Your task to perform on an android device: turn off data saver in the chrome app Image 0: 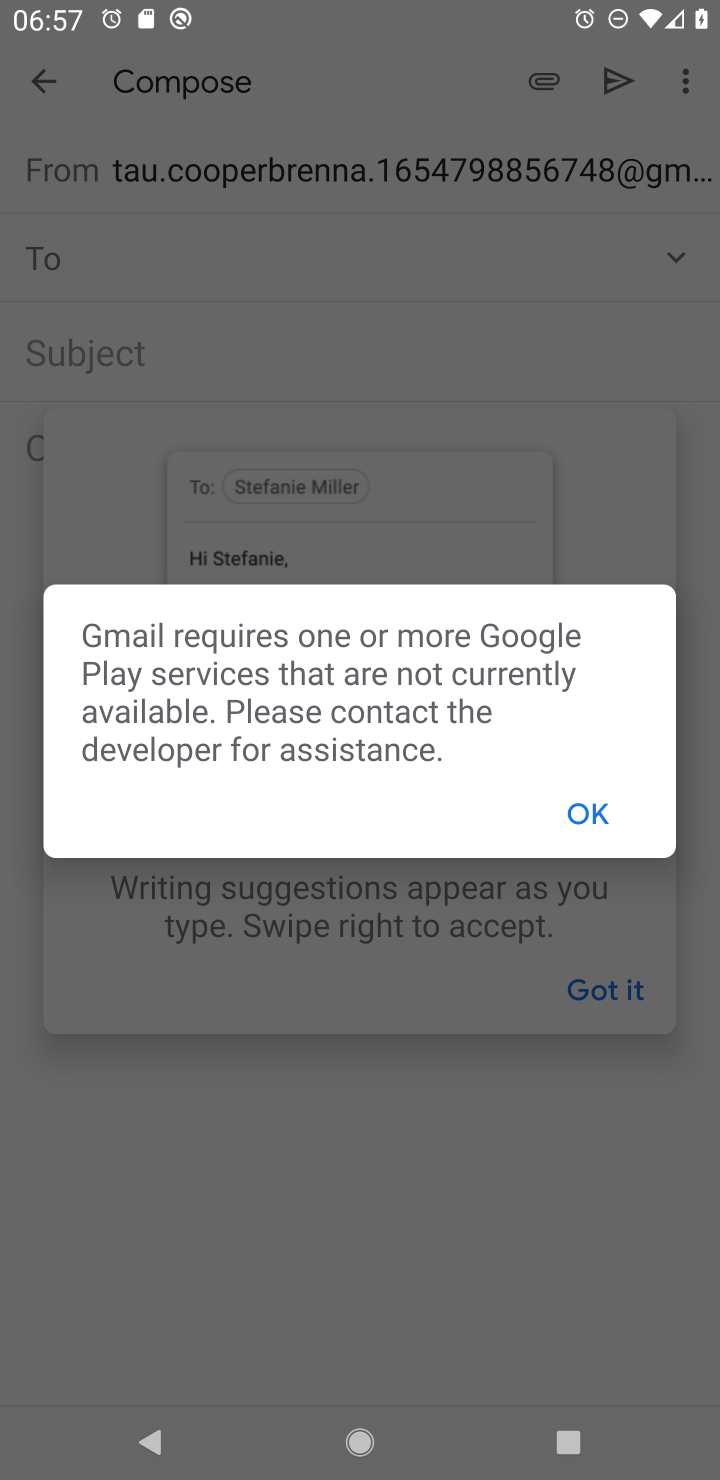
Step 0: click (595, 824)
Your task to perform on an android device: turn off data saver in the chrome app Image 1: 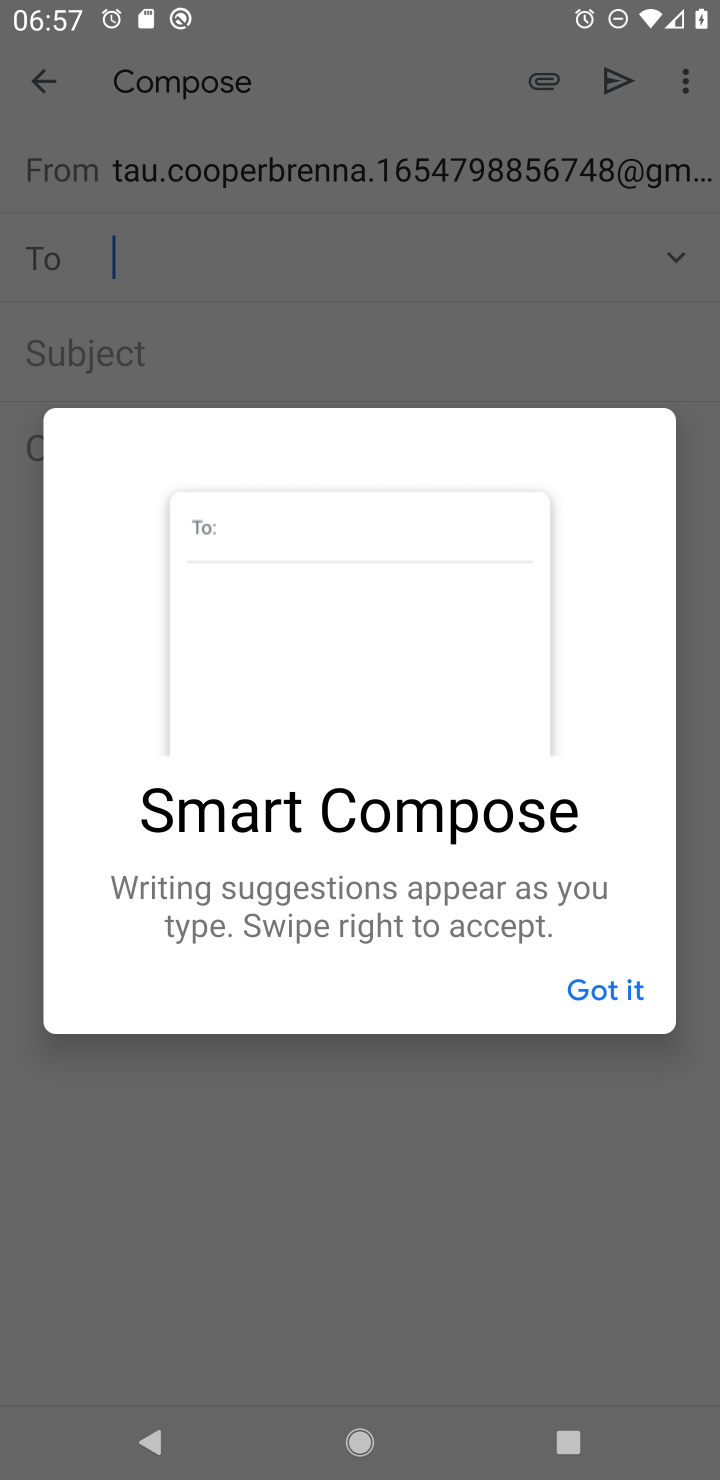
Step 1: press home button
Your task to perform on an android device: turn off data saver in the chrome app Image 2: 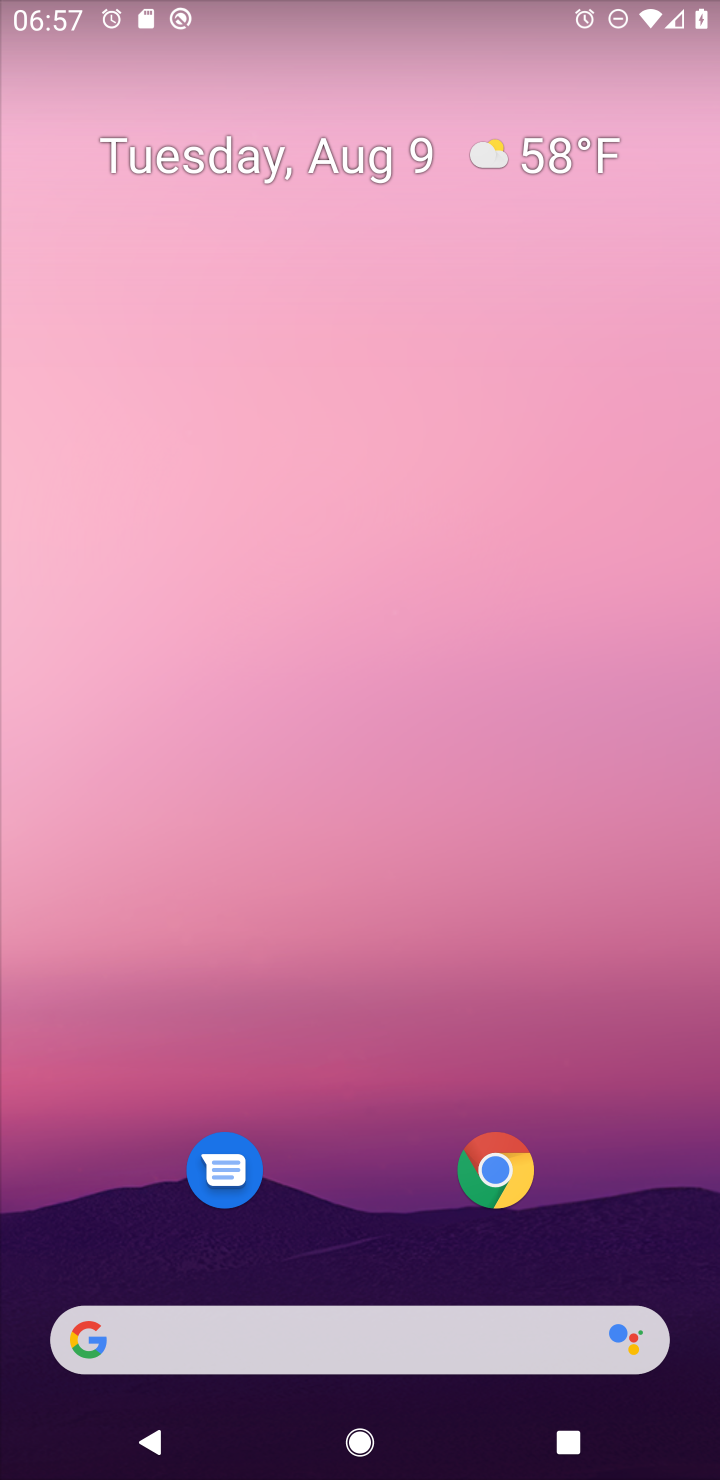
Step 2: click (504, 1168)
Your task to perform on an android device: turn off data saver in the chrome app Image 3: 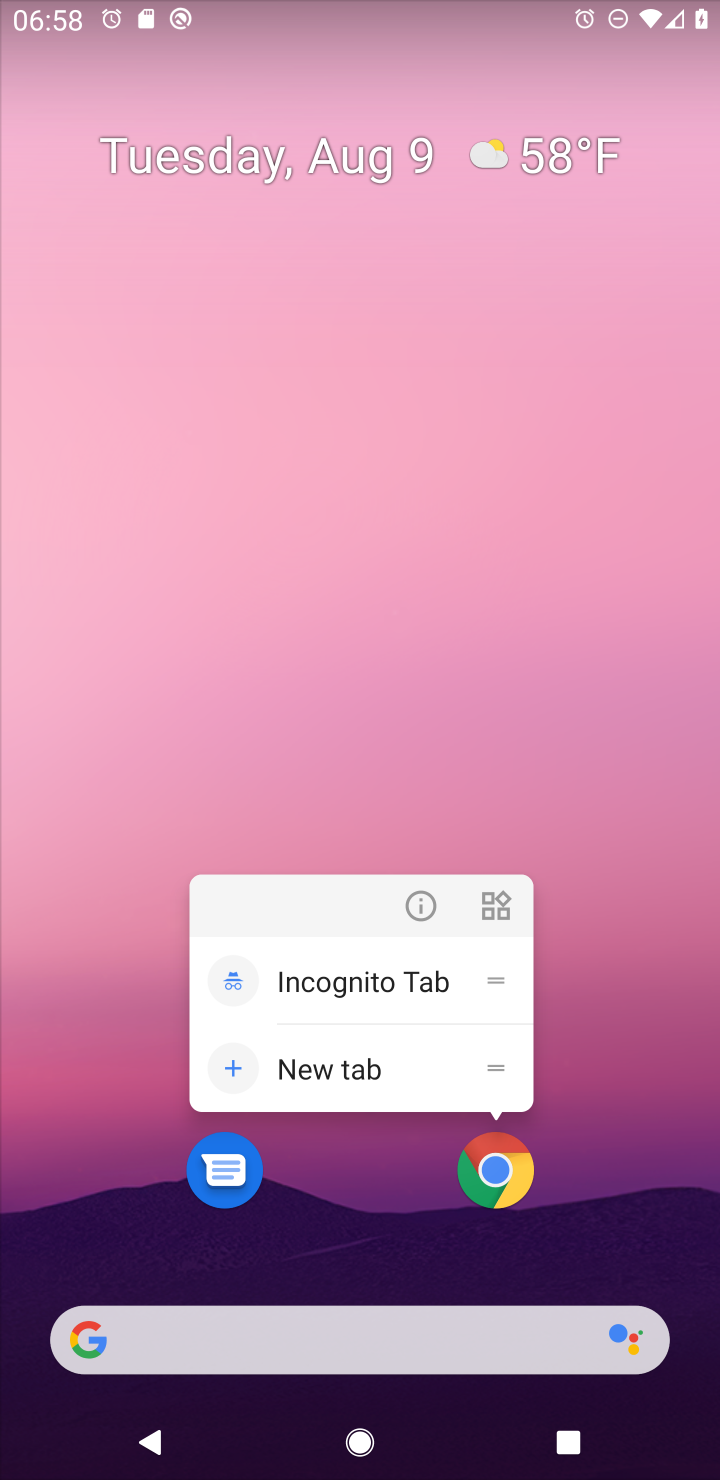
Step 3: click (490, 1172)
Your task to perform on an android device: turn off data saver in the chrome app Image 4: 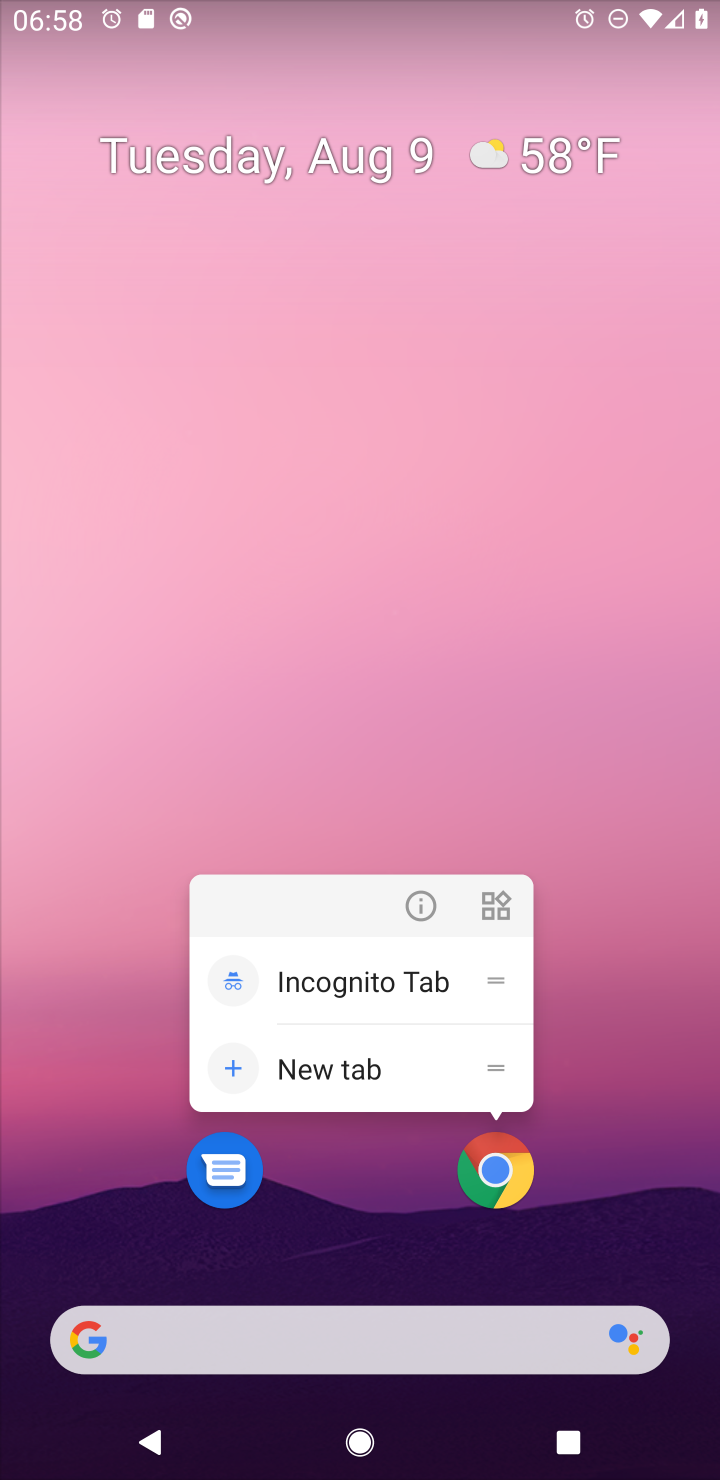
Step 4: click (490, 1172)
Your task to perform on an android device: turn off data saver in the chrome app Image 5: 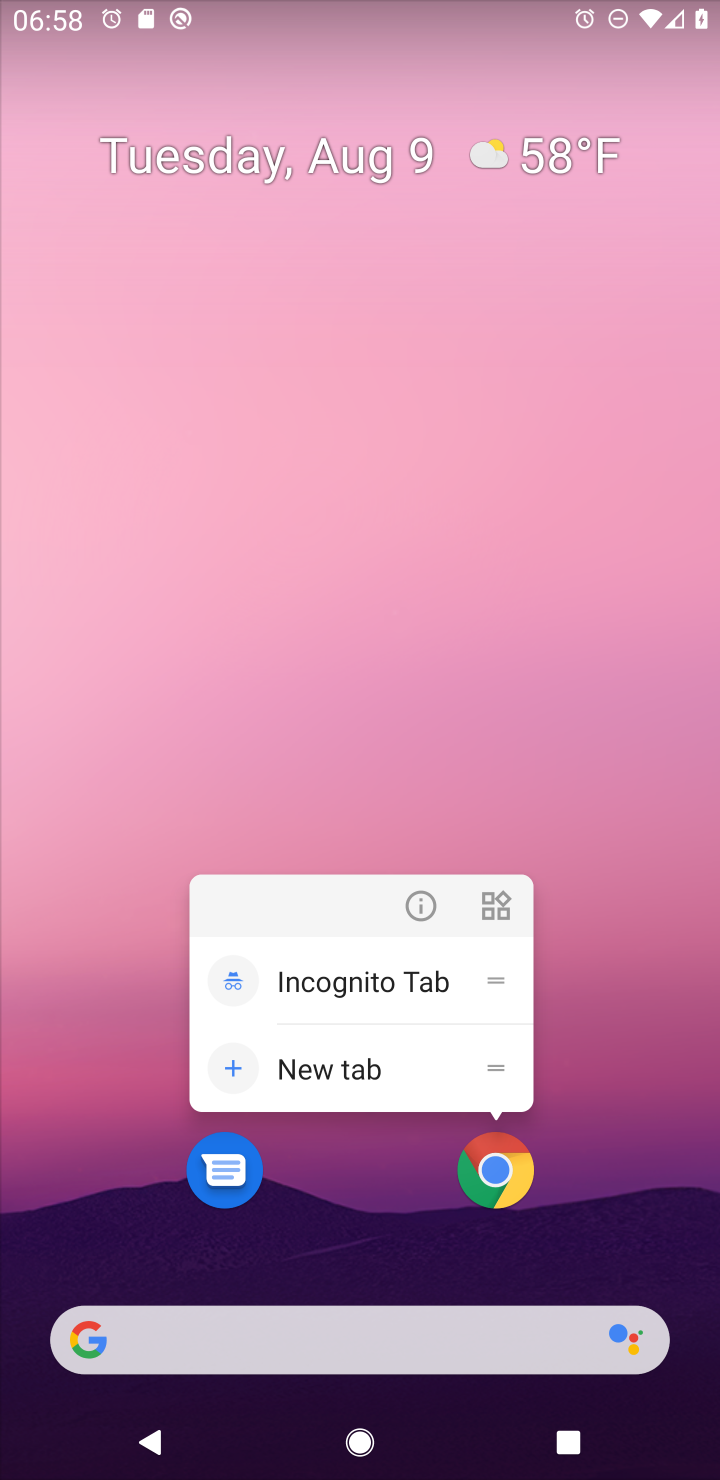
Step 5: click (490, 1172)
Your task to perform on an android device: turn off data saver in the chrome app Image 6: 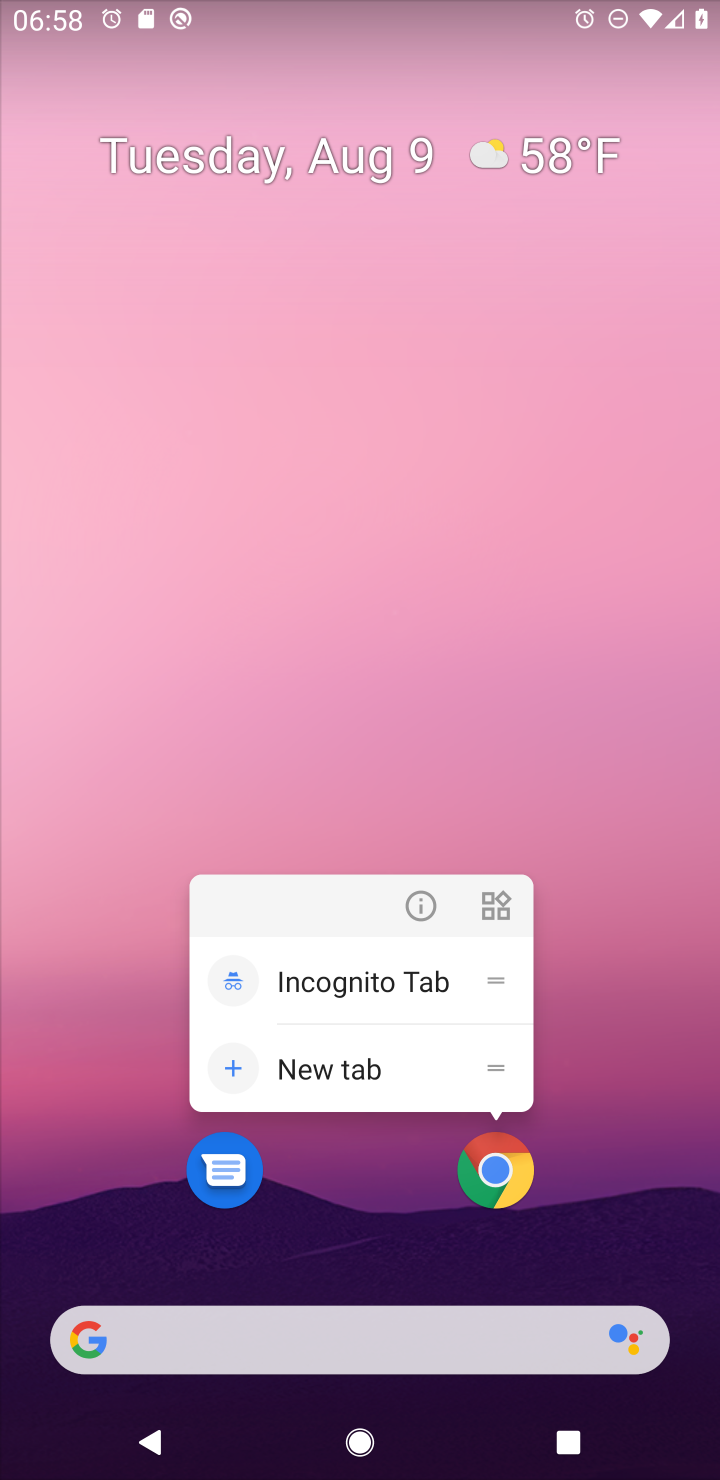
Step 6: click (490, 1172)
Your task to perform on an android device: turn off data saver in the chrome app Image 7: 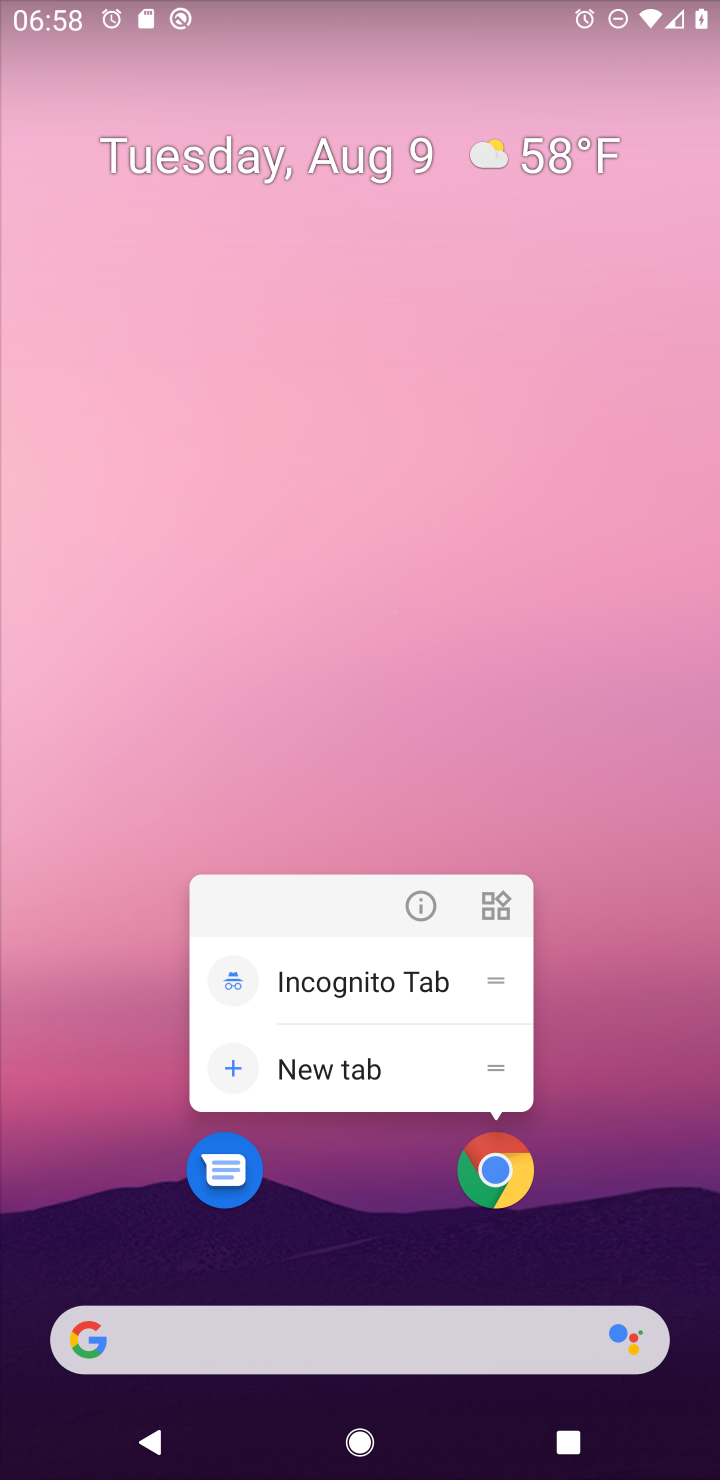
Step 7: click (490, 1172)
Your task to perform on an android device: turn off data saver in the chrome app Image 8: 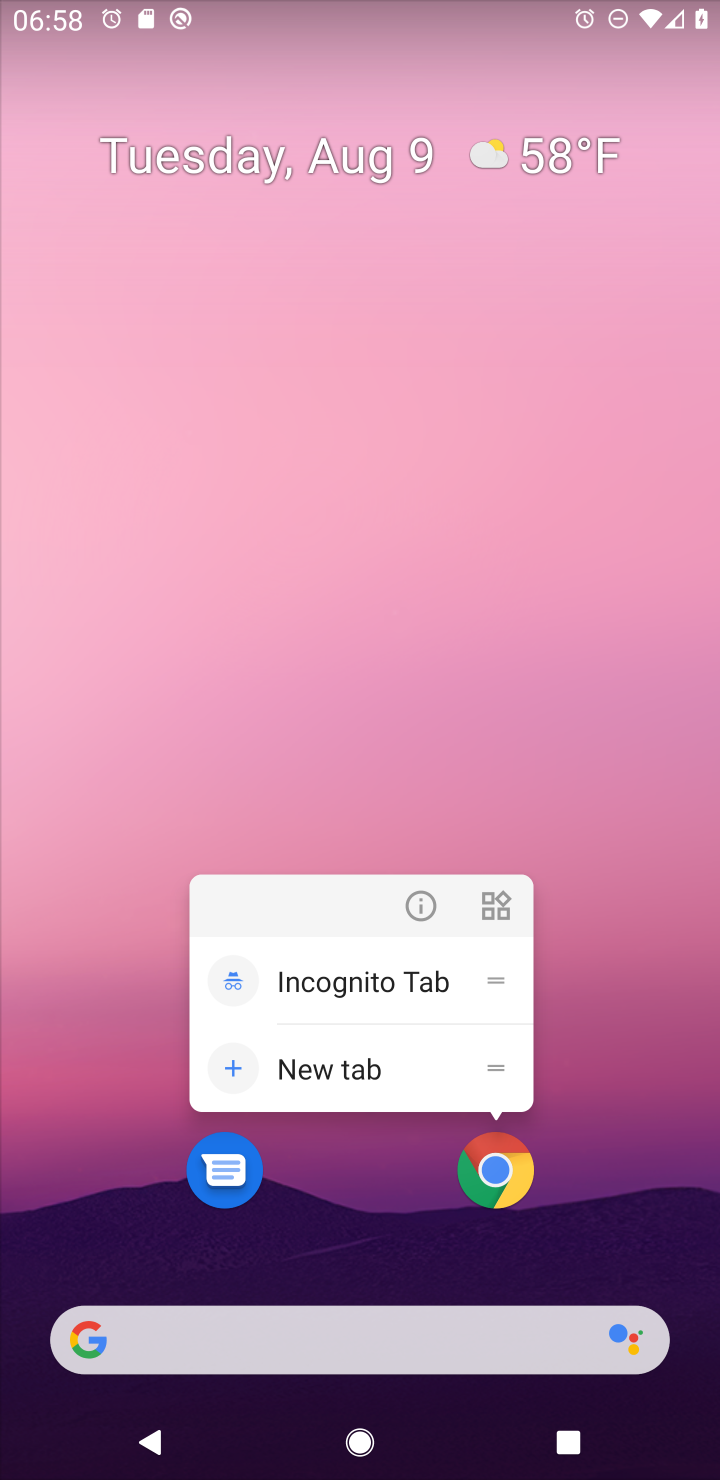
Step 8: click (490, 1172)
Your task to perform on an android device: turn off data saver in the chrome app Image 9: 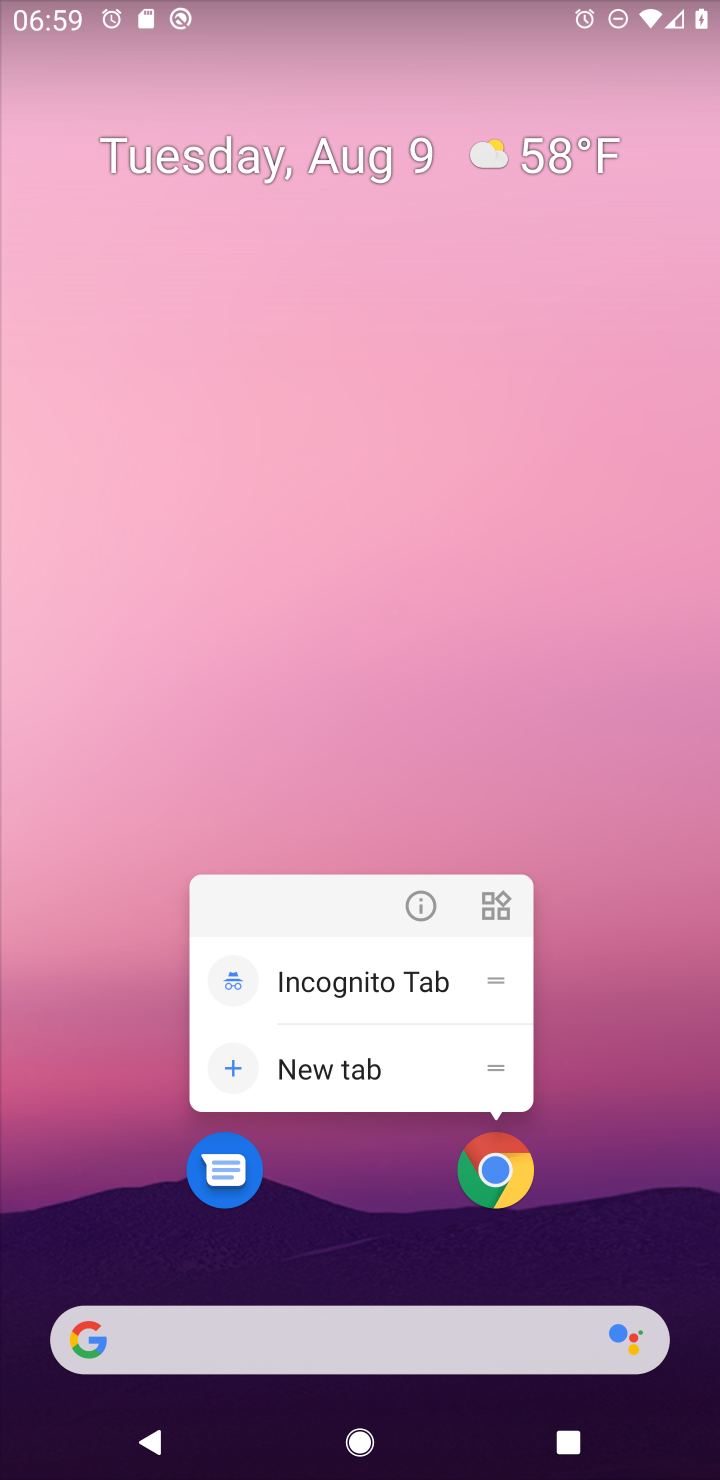
Step 9: click (490, 1172)
Your task to perform on an android device: turn off data saver in the chrome app Image 10: 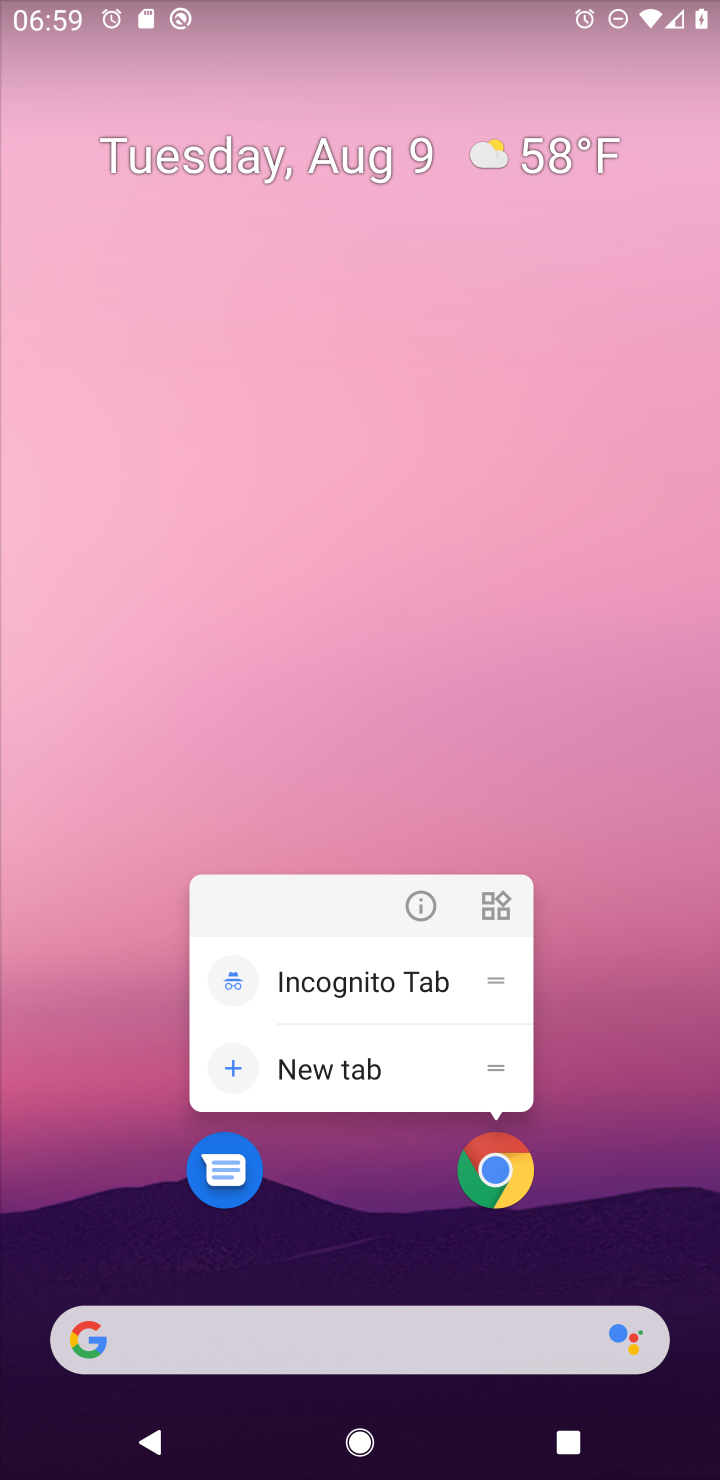
Step 10: click (490, 1172)
Your task to perform on an android device: turn off data saver in the chrome app Image 11: 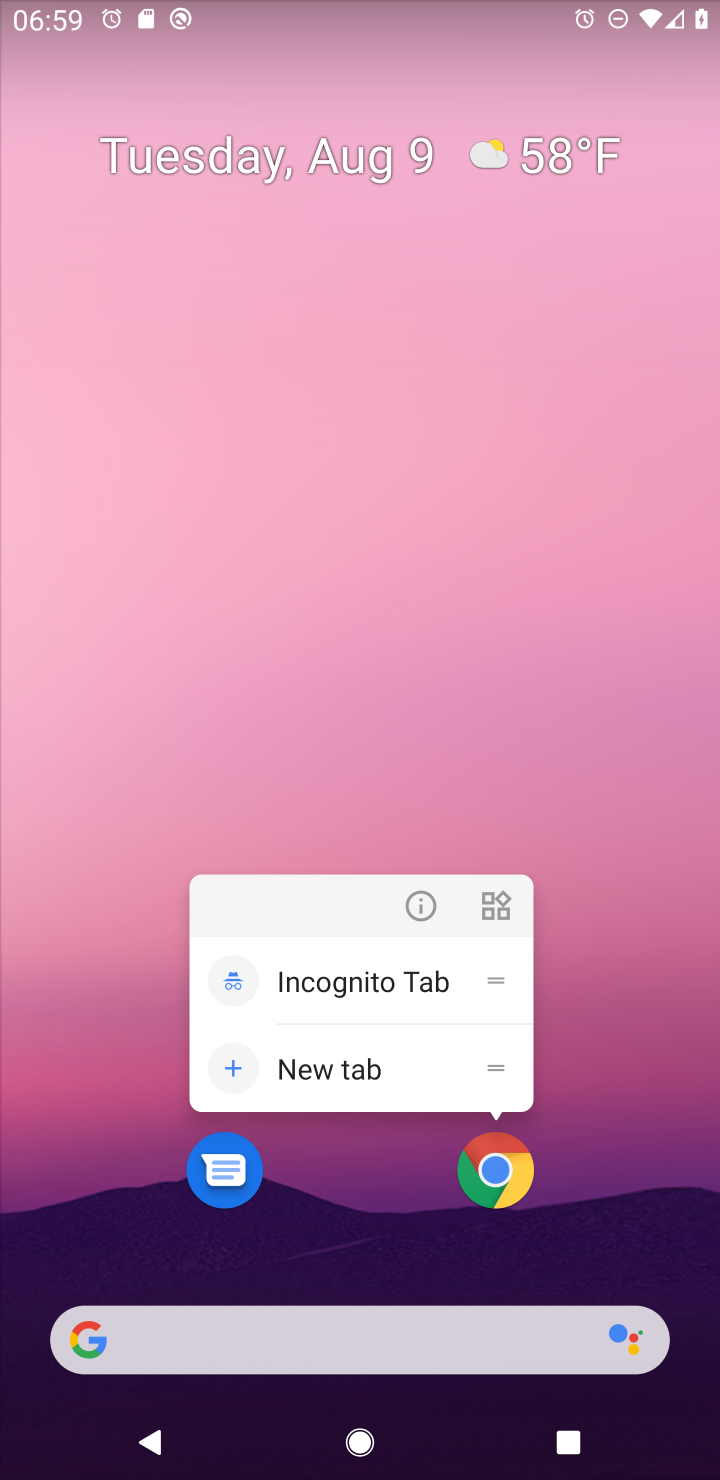
Step 11: click (496, 1177)
Your task to perform on an android device: turn off data saver in the chrome app Image 12: 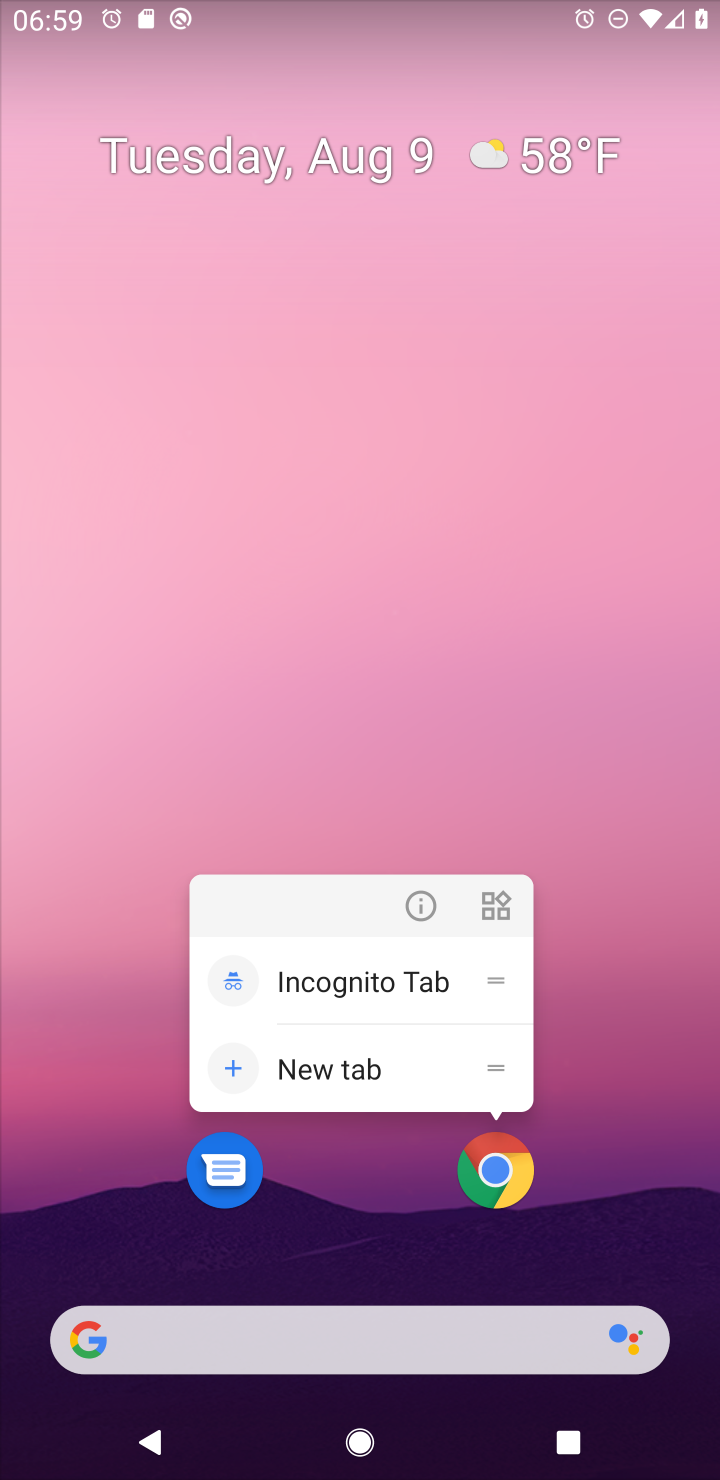
Step 12: click (496, 1177)
Your task to perform on an android device: turn off data saver in the chrome app Image 13: 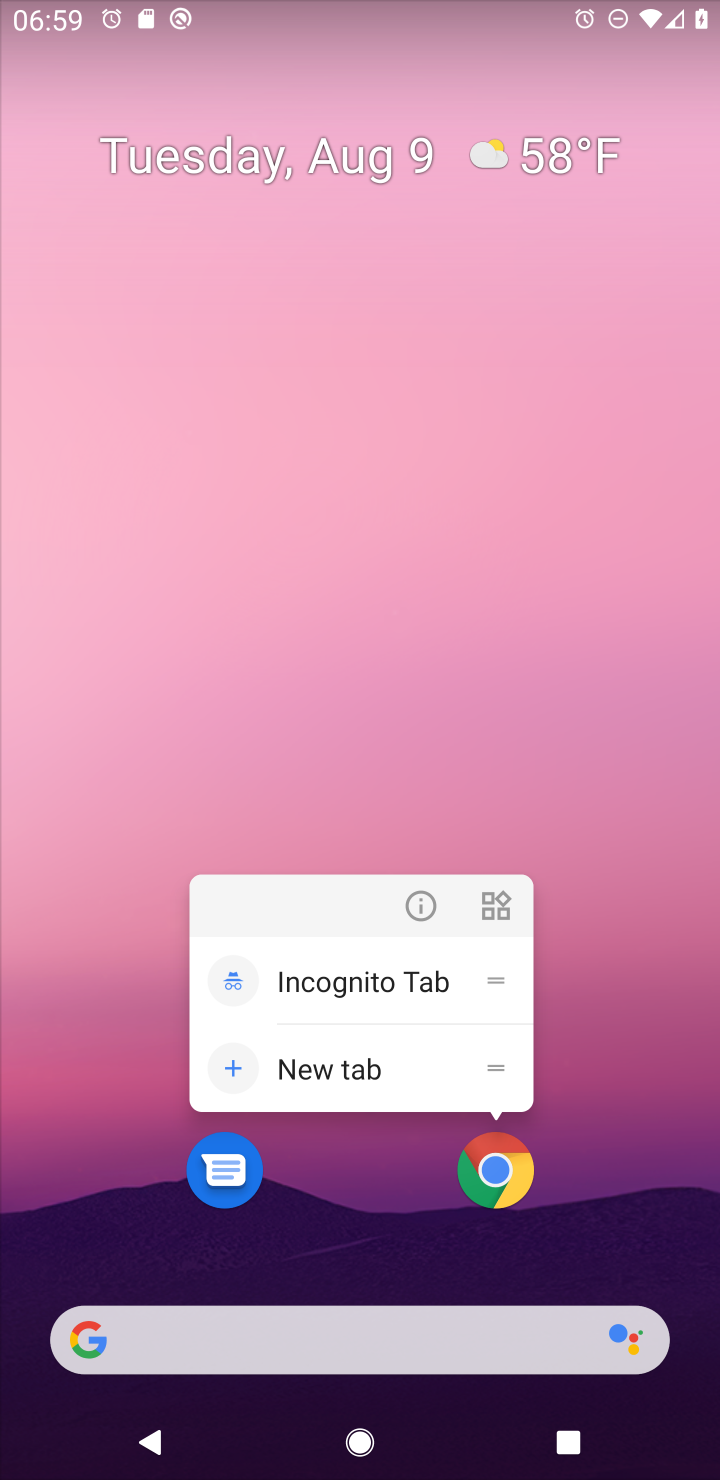
Step 13: click (496, 1177)
Your task to perform on an android device: turn off data saver in the chrome app Image 14: 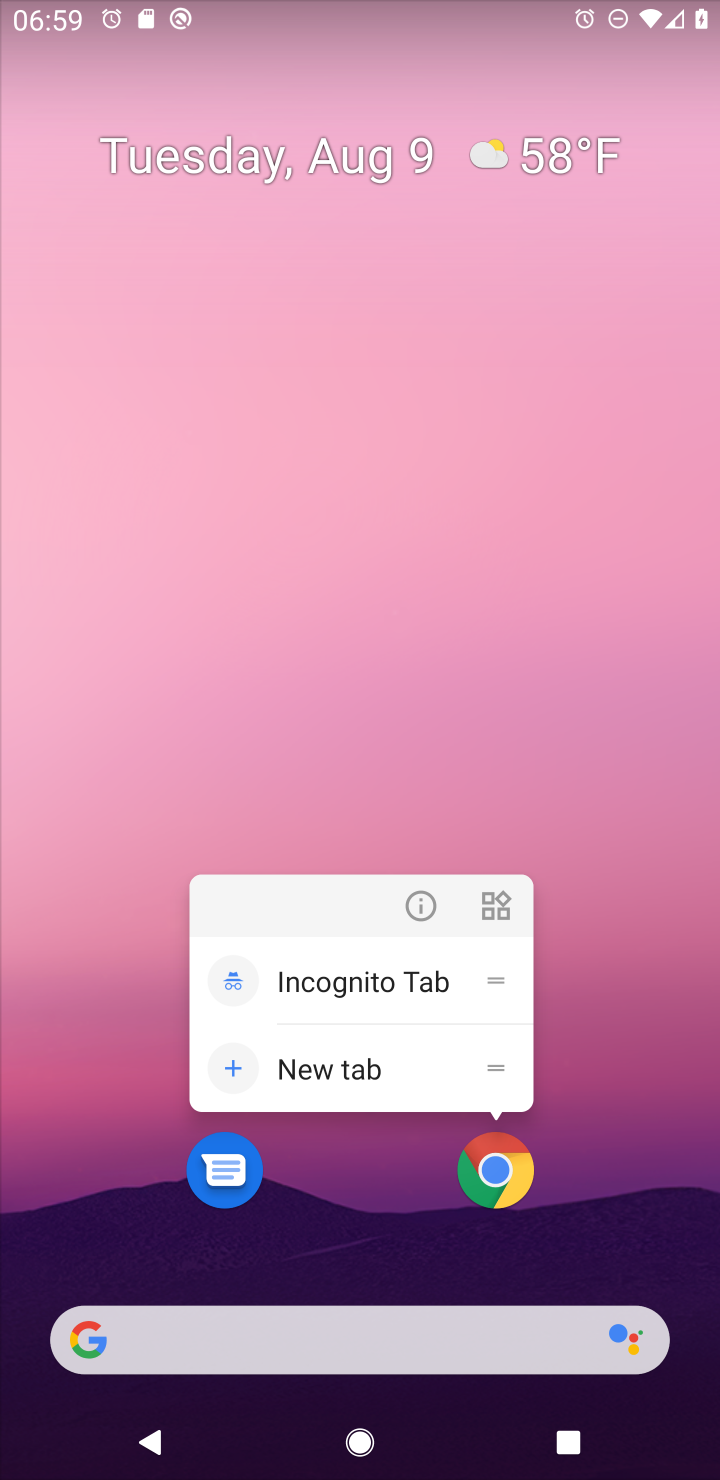
Step 14: click (496, 1177)
Your task to perform on an android device: turn off data saver in the chrome app Image 15: 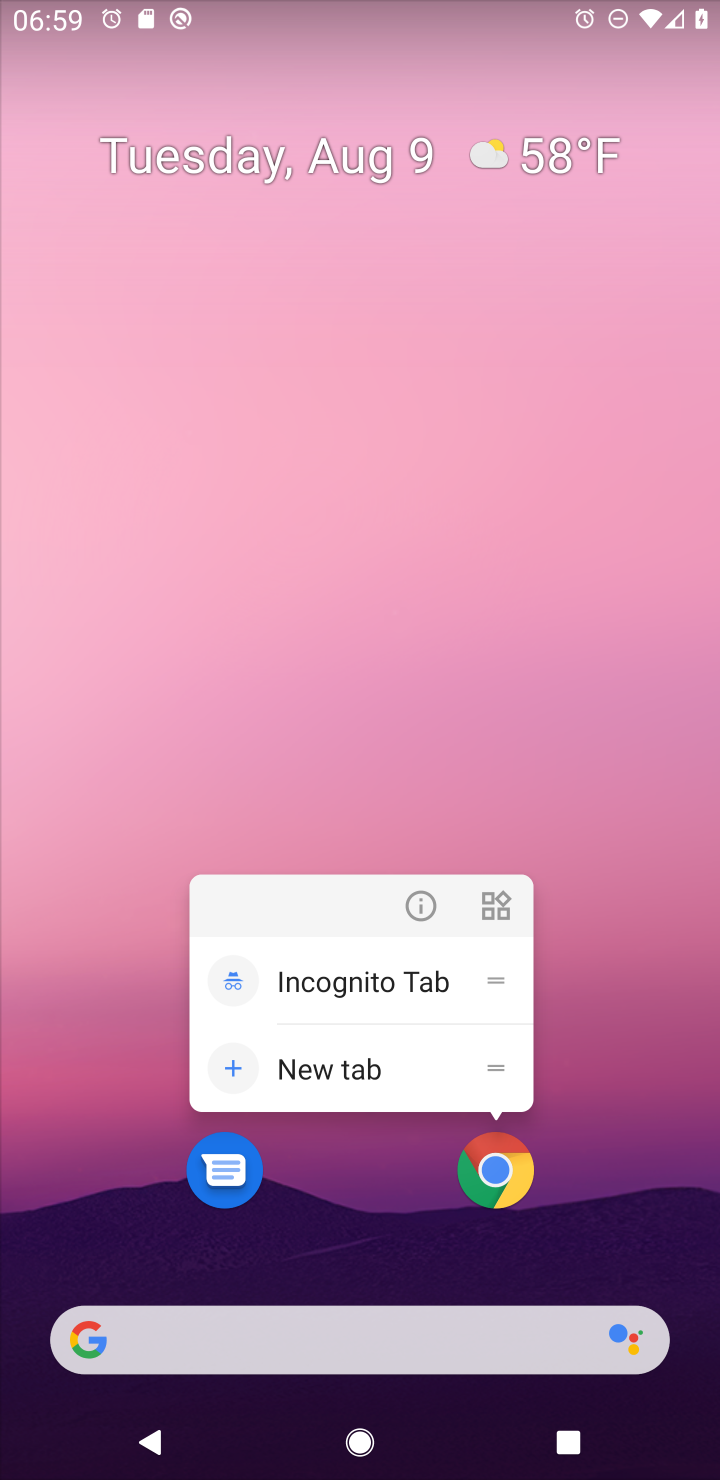
Step 15: click (496, 1177)
Your task to perform on an android device: turn off data saver in the chrome app Image 16: 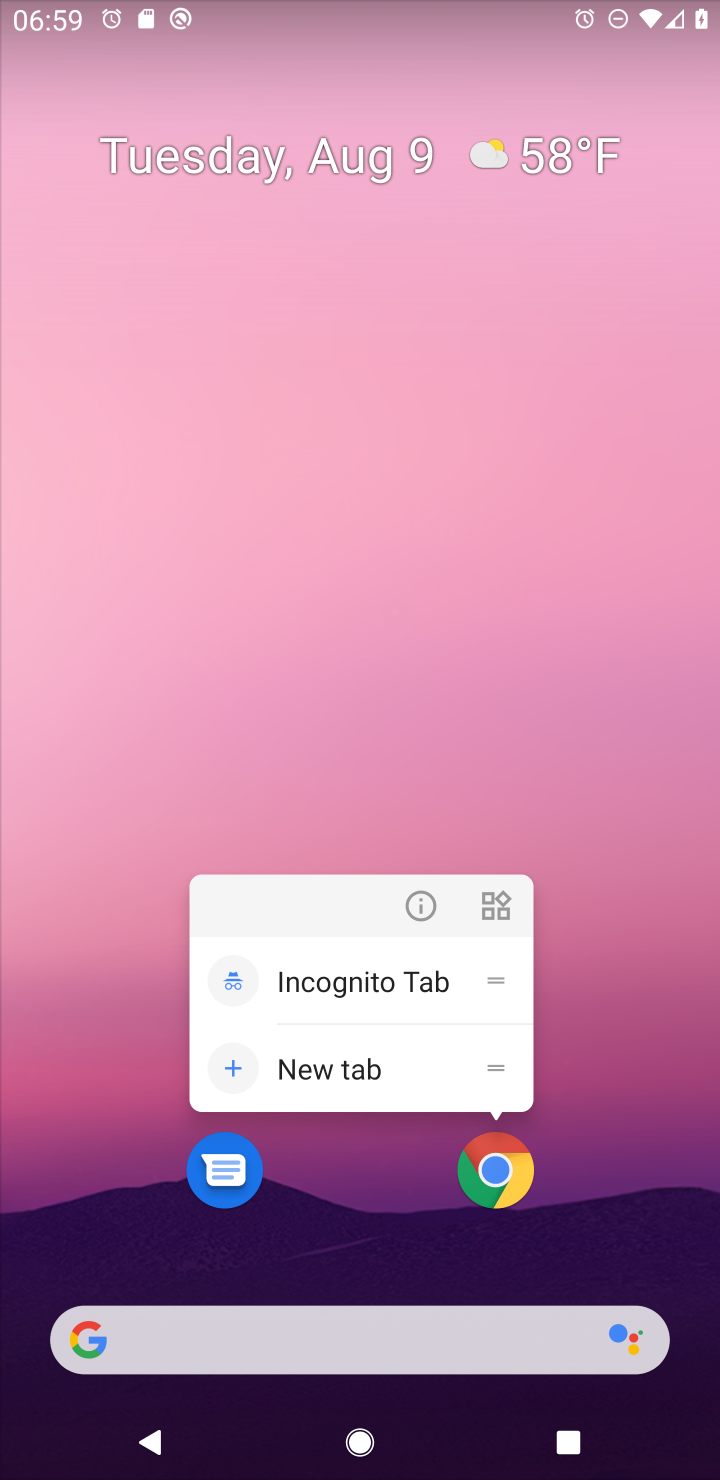
Step 16: click (496, 1177)
Your task to perform on an android device: turn off data saver in the chrome app Image 17: 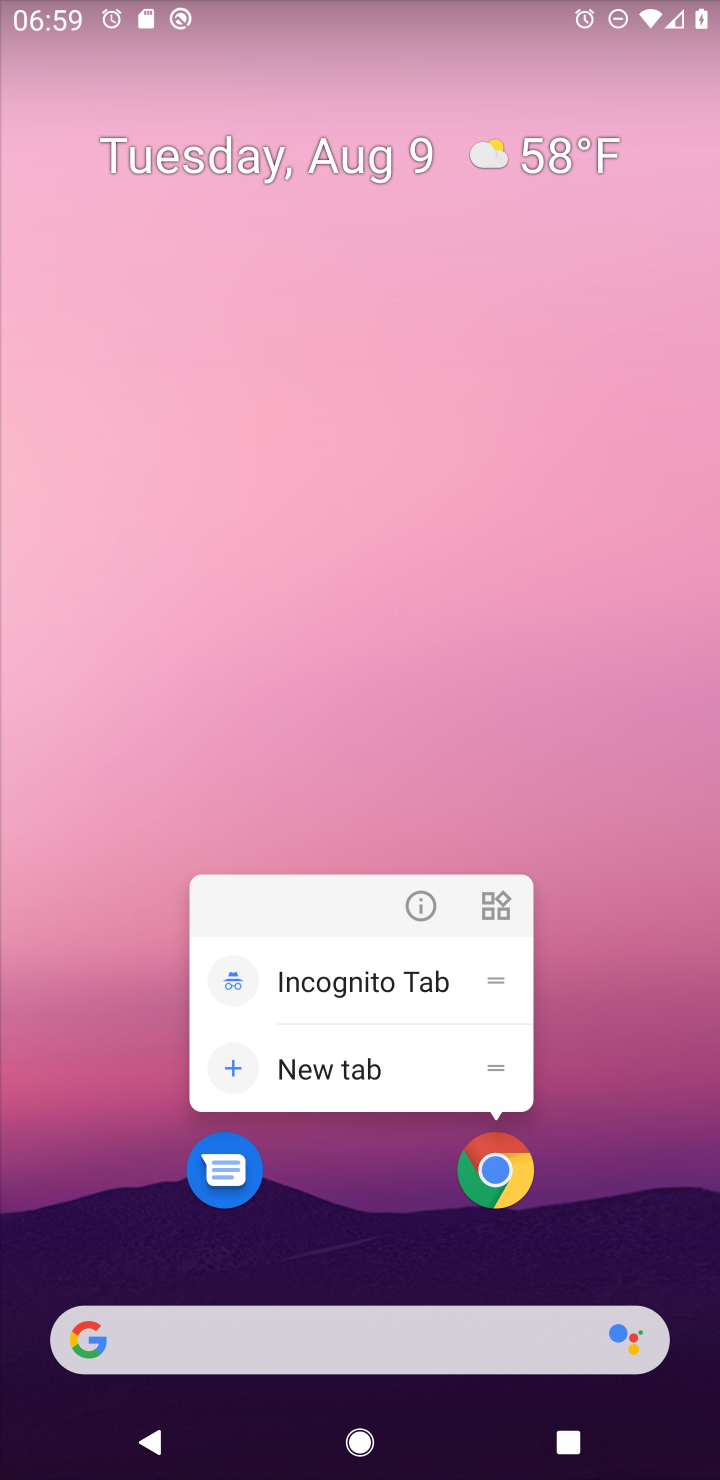
Step 17: click (496, 1177)
Your task to perform on an android device: turn off data saver in the chrome app Image 18: 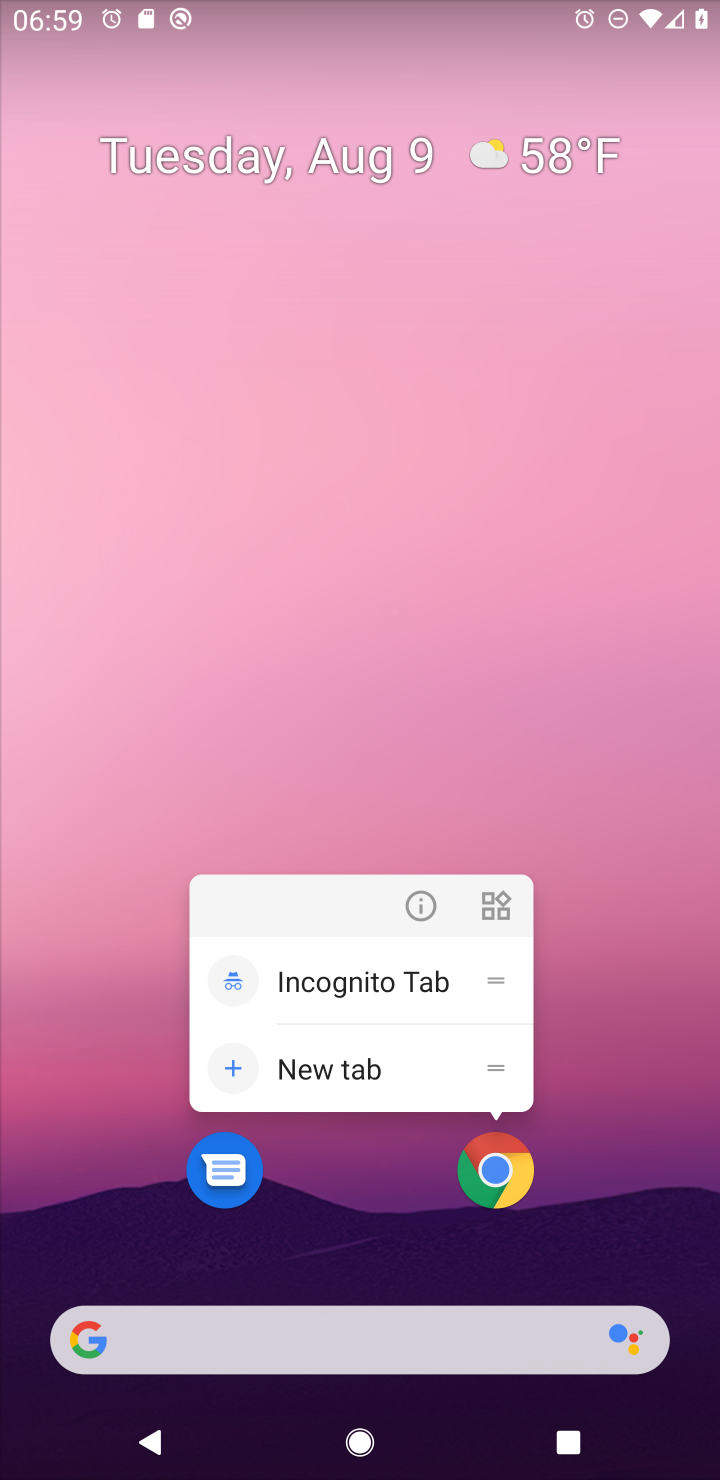
Step 18: click (496, 1177)
Your task to perform on an android device: turn off data saver in the chrome app Image 19: 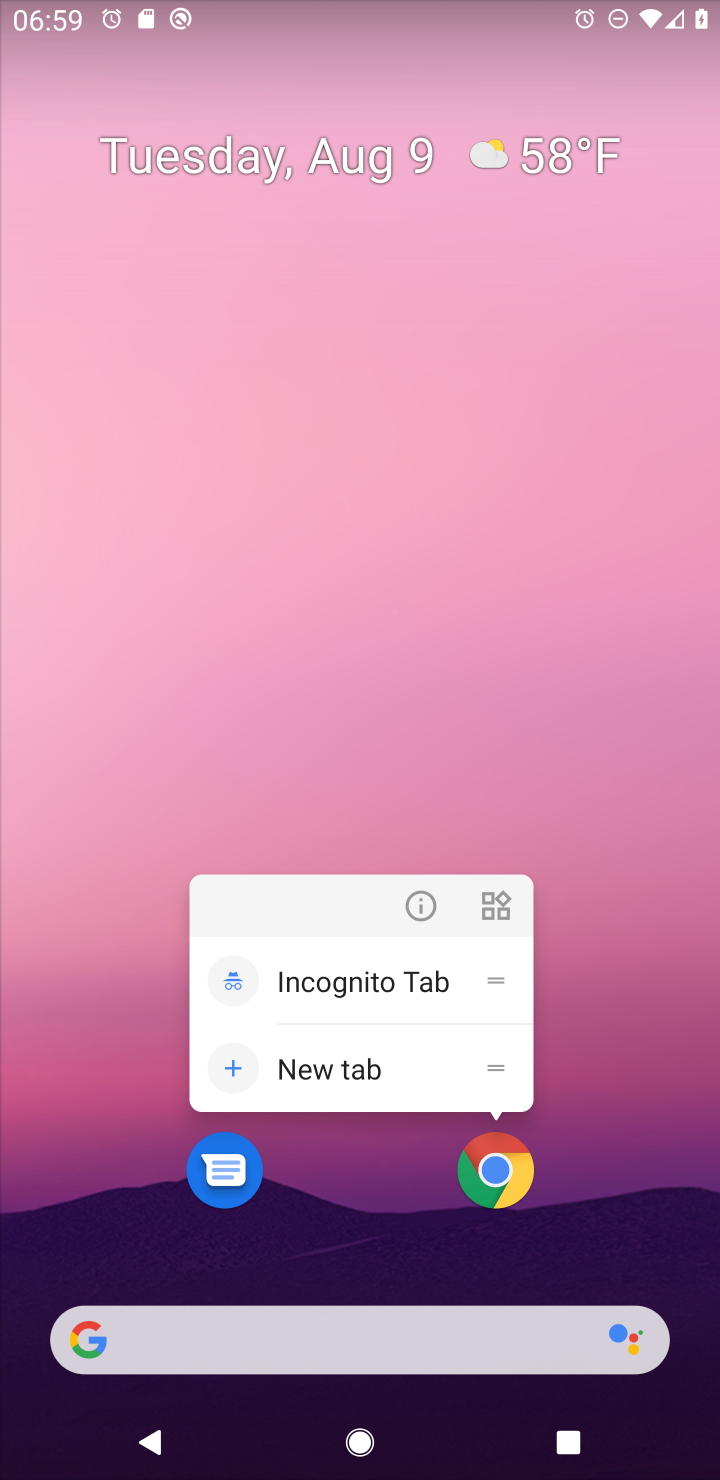
Step 19: click (496, 1177)
Your task to perform on an android device: turn off data saver in the chrome app Image 20: 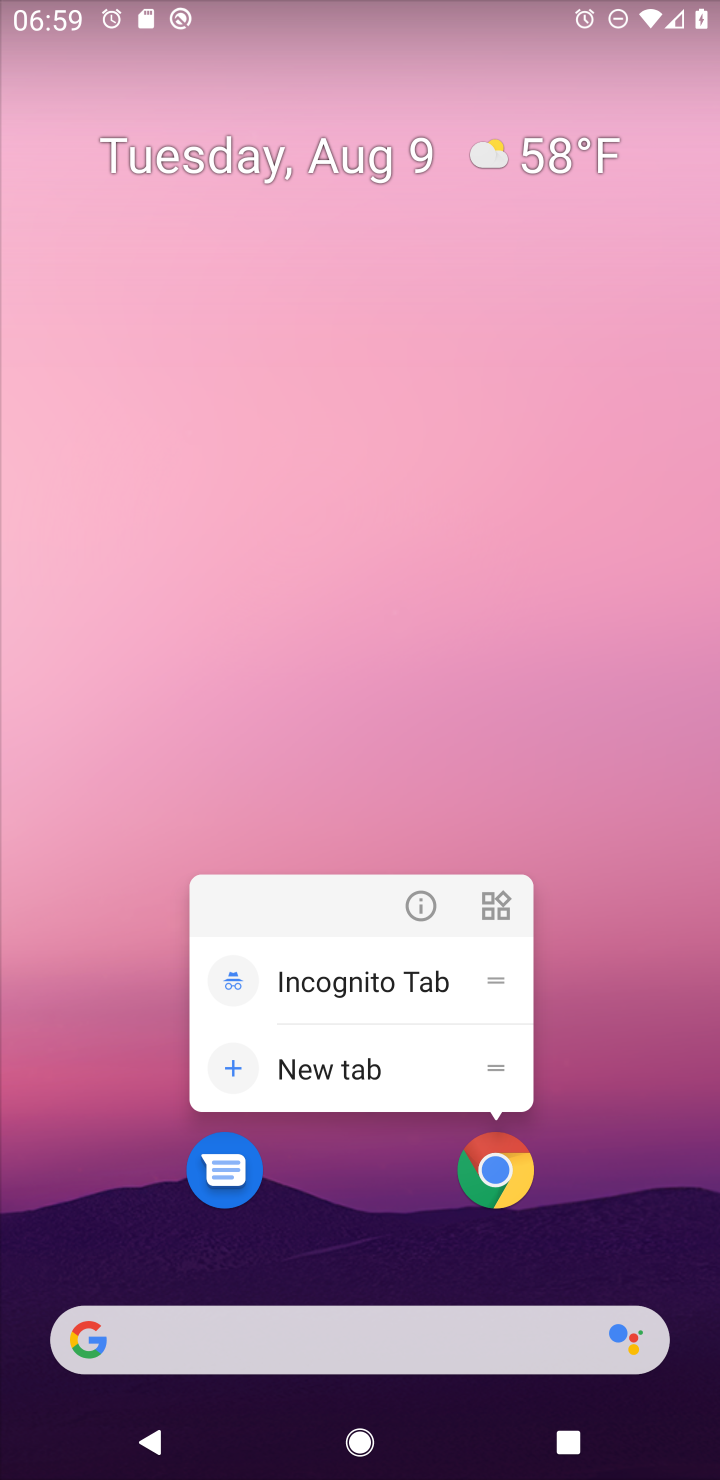
Step 20: click (496, 1177)
Your task to perform on an android device: turn off data saver in the chrome app Image 21: 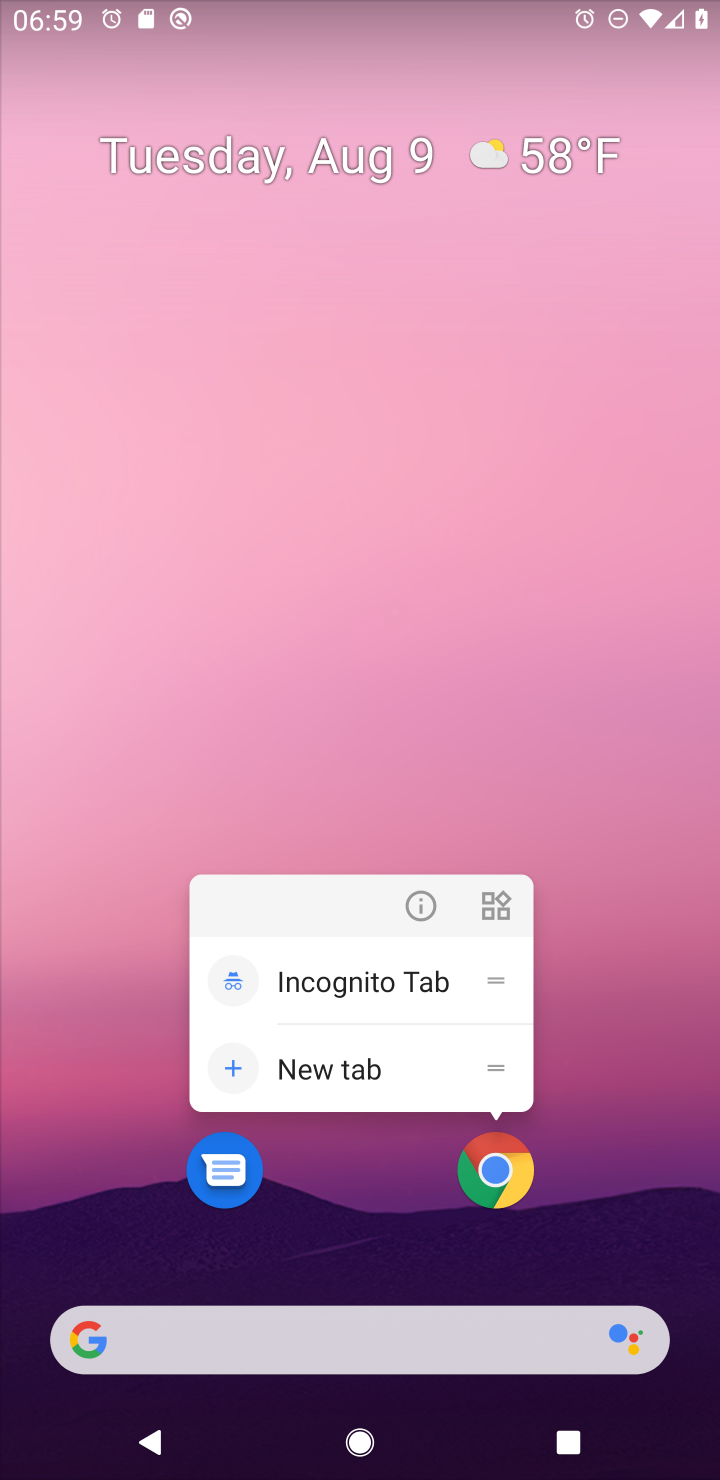
Step 21: click (496, 1177)
Your task to perform on an android device: turn off data saver in the chrome app Image 22: 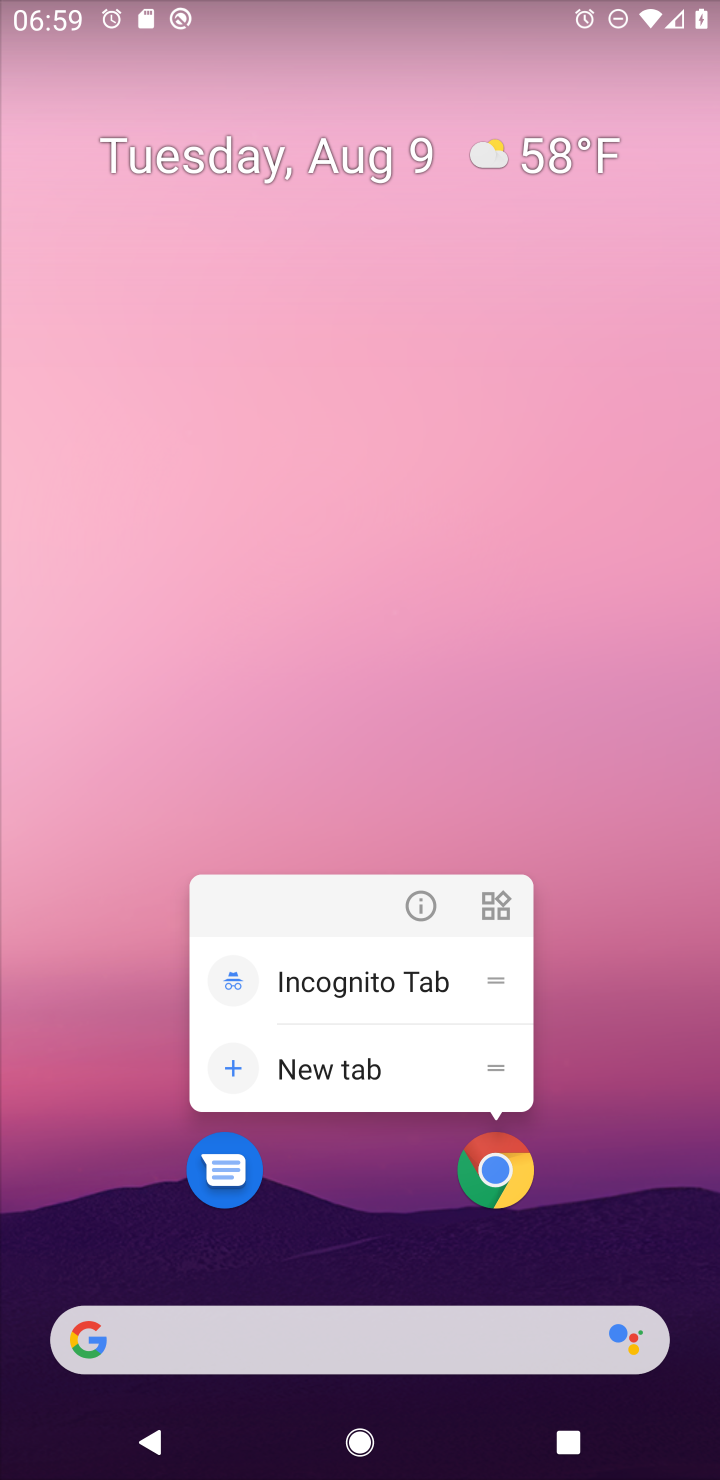
Step 22: click (495, 1189)
Your task to perform on an android device: turn off data saver in the chrome app Image 23: 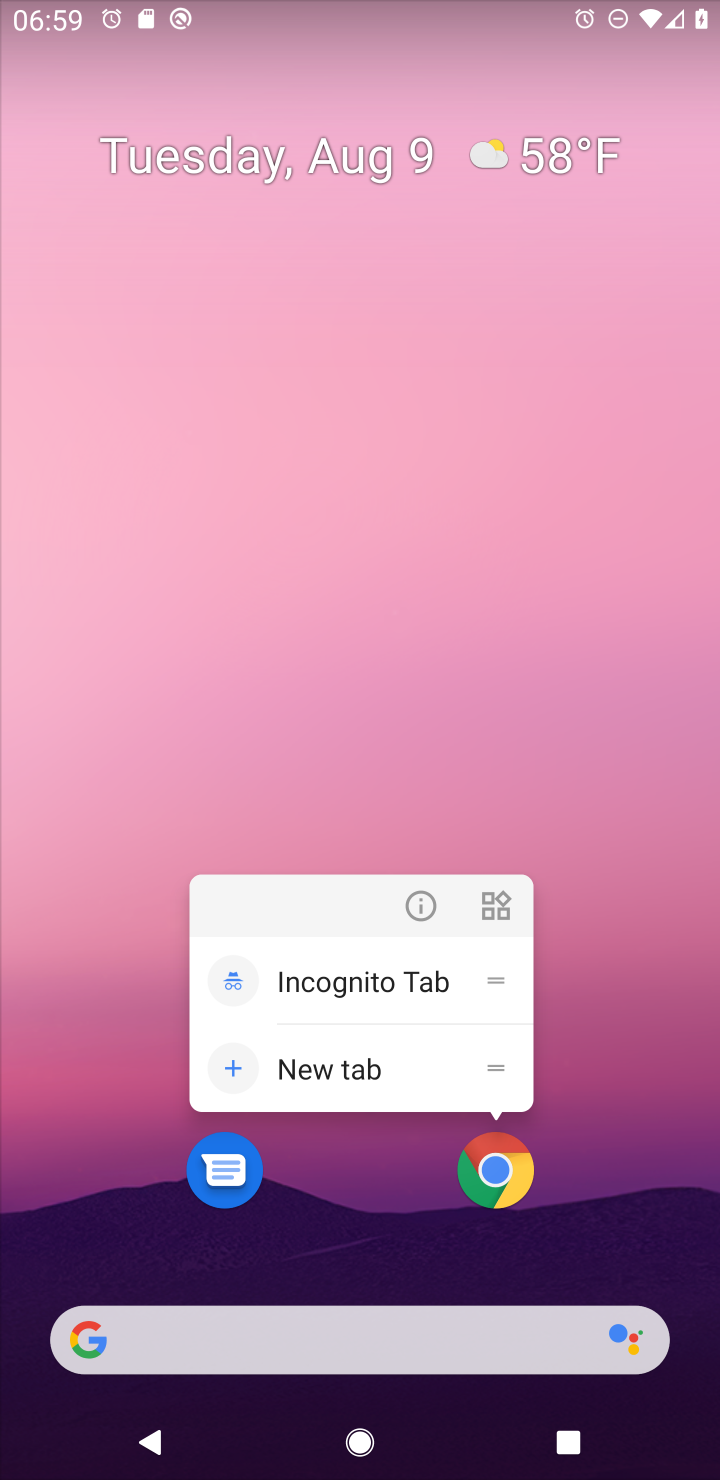
Step 23: click (495, 1189)
Your task to perform on an android device: turn off data saver in the chrome app Image 24: 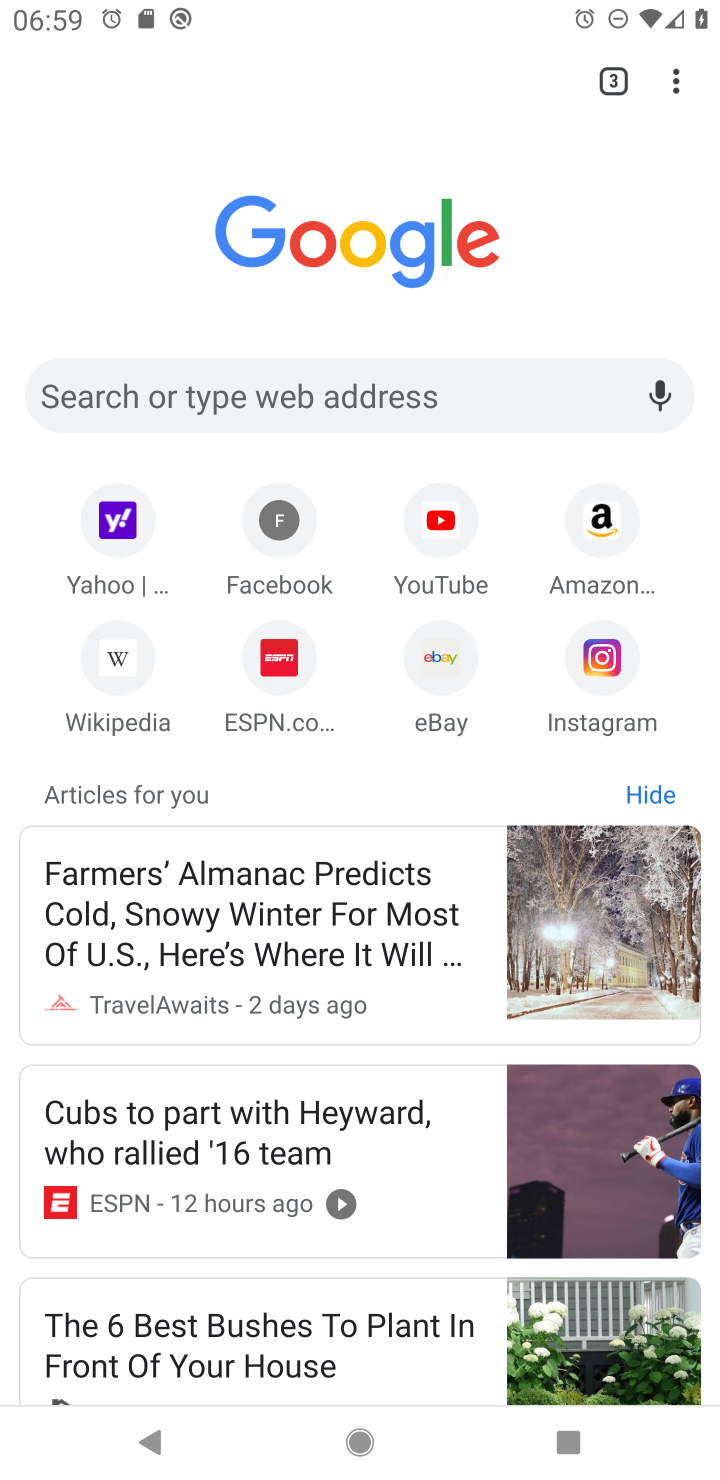
Step 24: drag from (674, 83) to (416, 689)
Your task to perform on an android device: turn off data saver in the chrome app Image 25: 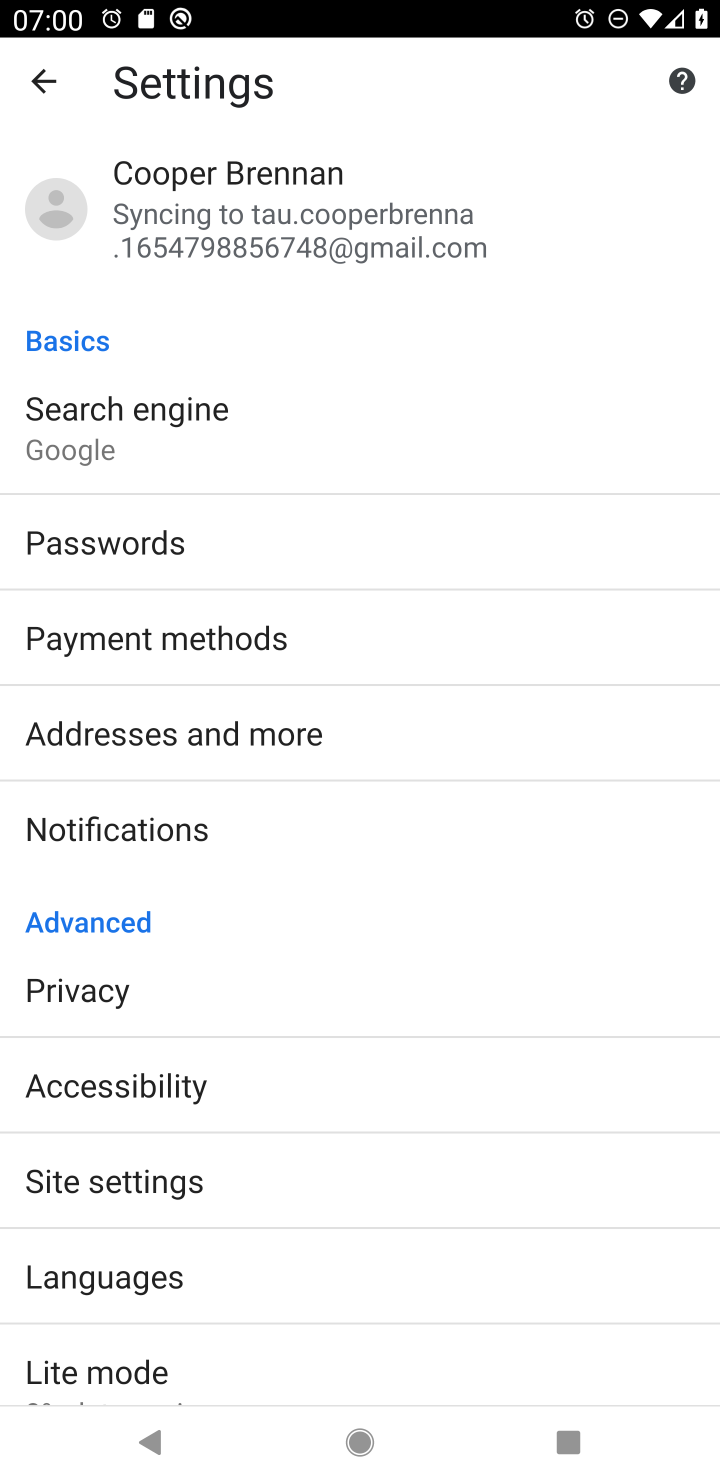
Step 25: click (143, 1375)
Your task to perform on an android device: turn off data saver in the chrome app Image 26: 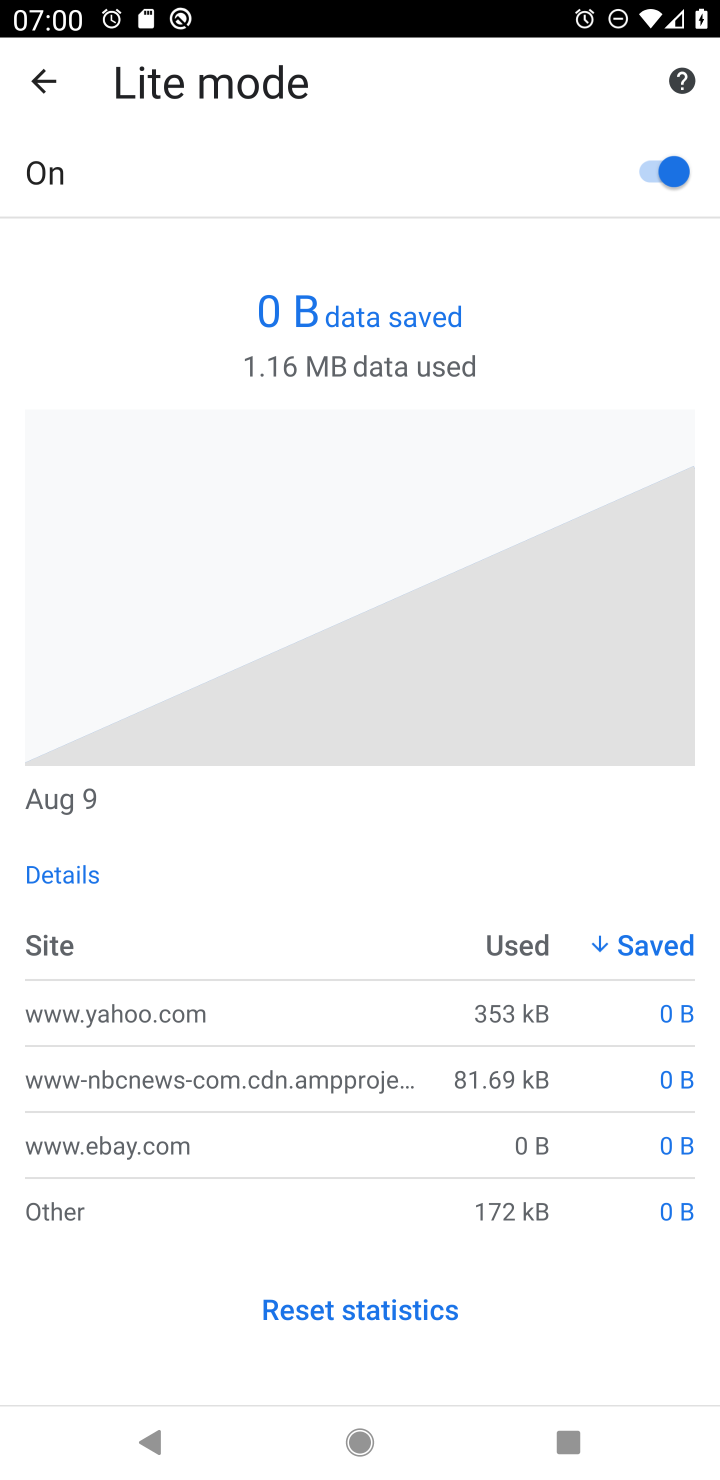
Step 26: click (664, 171)
Your task to perform on an android device: turn off data saver in the chrome app Image 27: 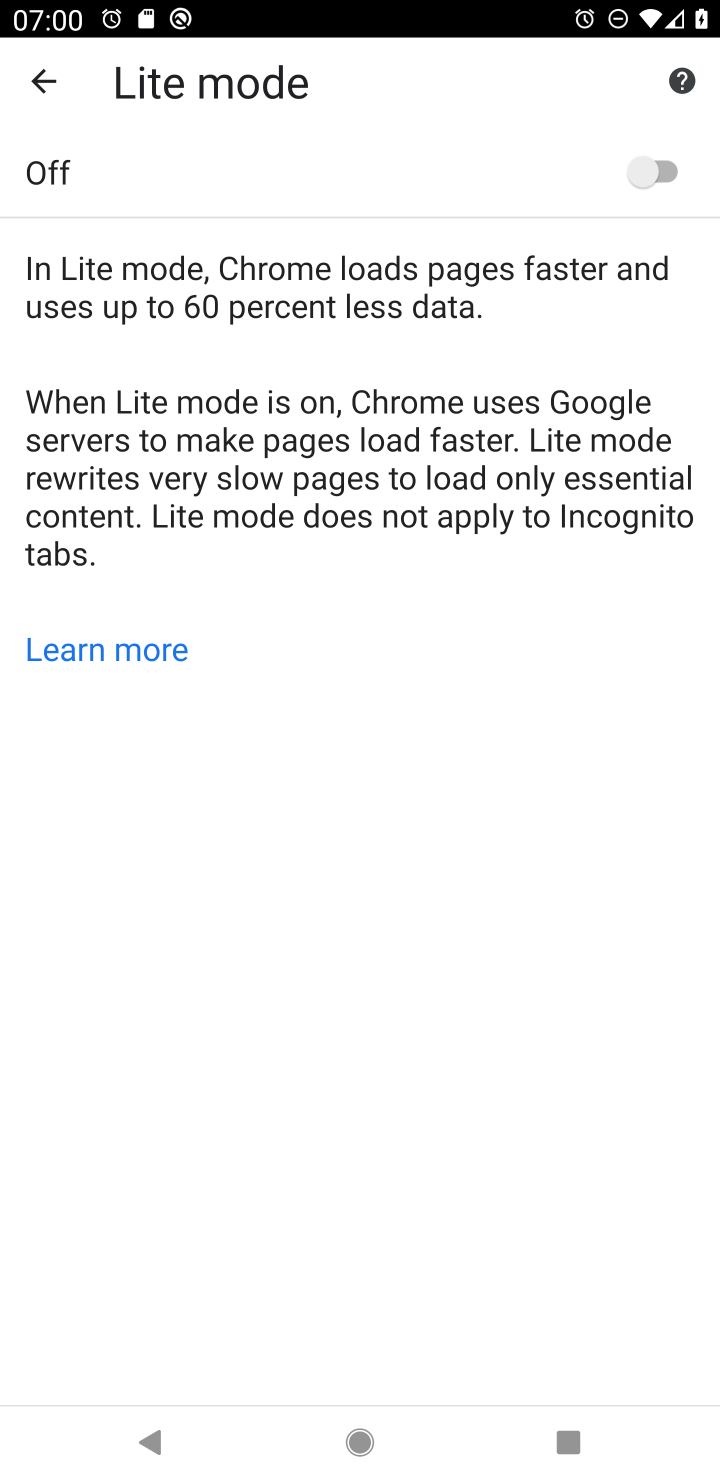
Step 27: task complete